Your task to perform on an android device: toggle notifications settings in the gmail app Image 0: 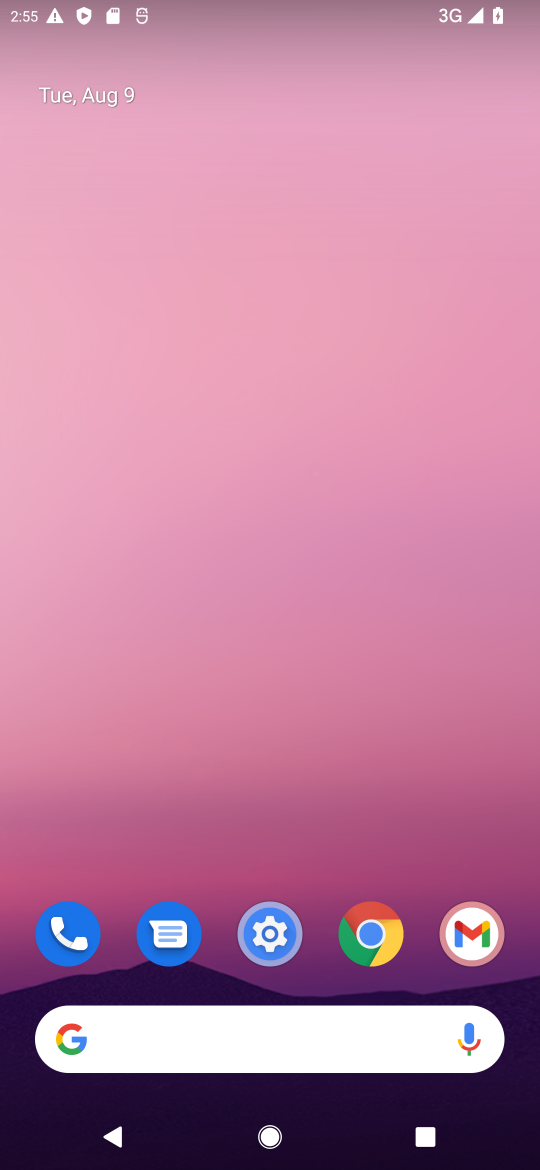
Step 0: click (476, 935)
Your task to perform on an android device: toggle notifications settings in the gmail app Image 1: 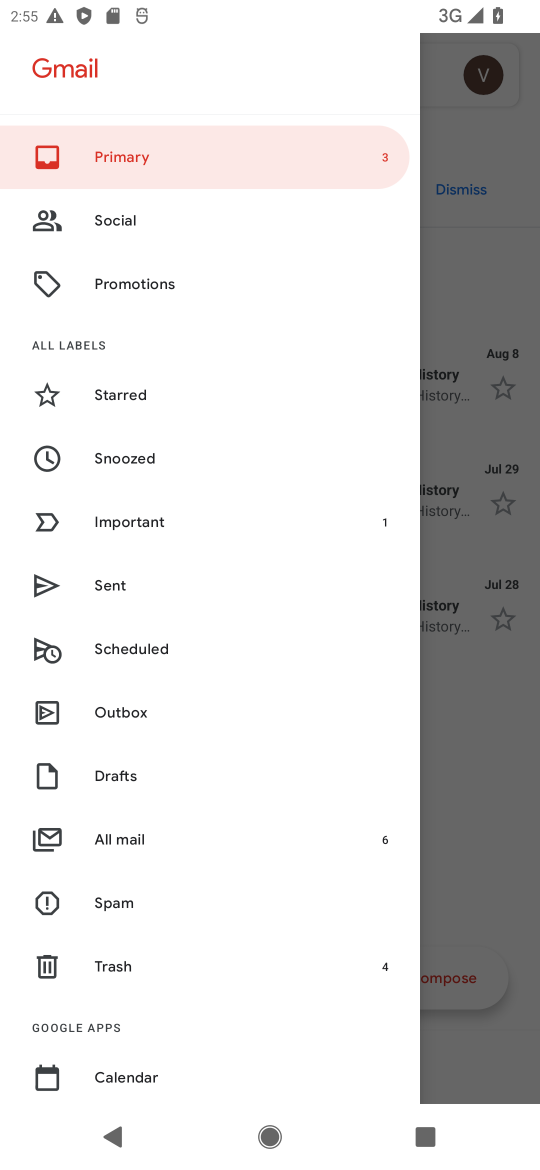
Step 1: task complete